Your task to perform on an android device: Open Google Chrome and open the bookmarks view Image 0: 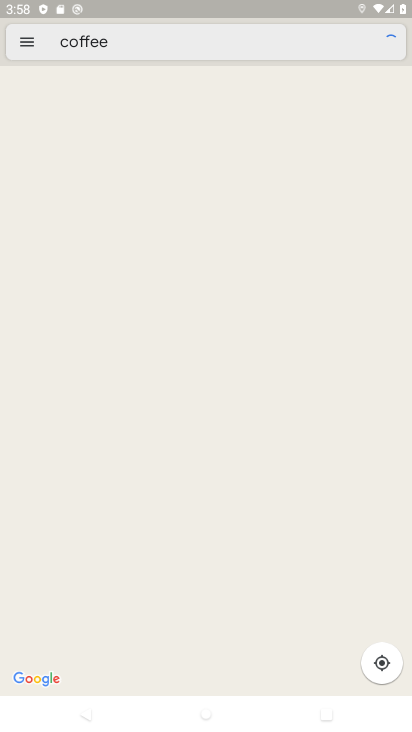
Step 0: press home button
Your task to perform on an android device: Open Google Chrome and open the bookmarks view Image 1: 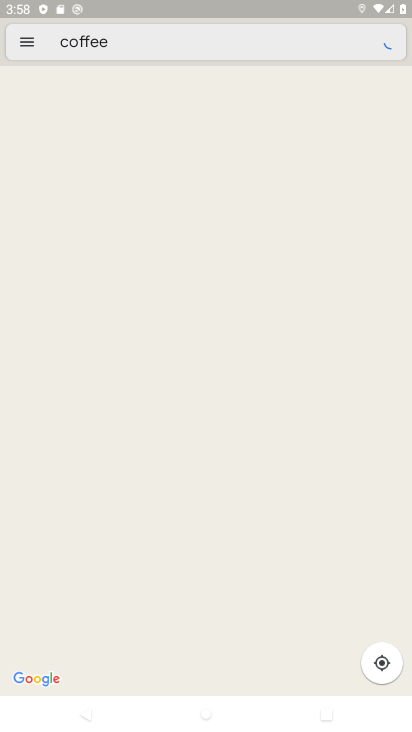
Step 1: press home button
Your task to perform on an android device: Open Google Chrome and open the bookmarks view Image 2: 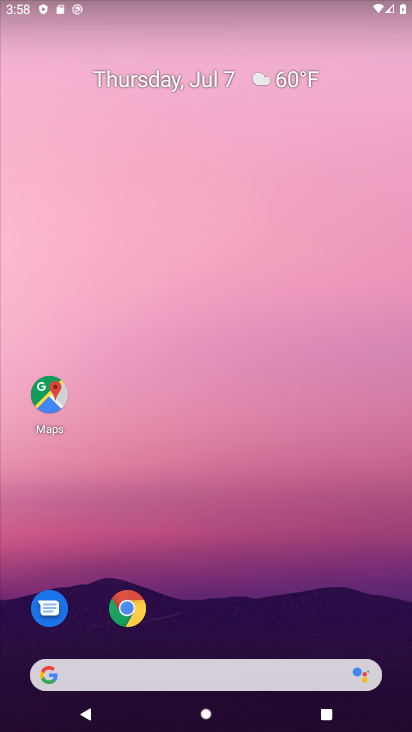
Step 2: click (123, 613)
Your task to perform on an android device: Open Google Chrome and open the bookmarks view Image 3: 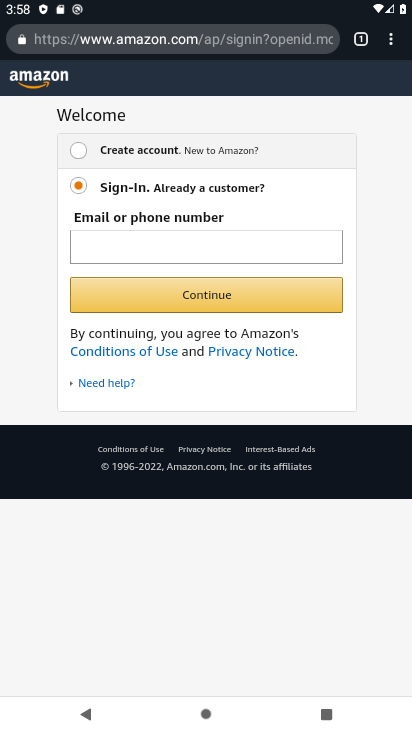
Step 3: click (366, 44)
Your task to perform on an android device: Open Google Chrome and open the bookmarks view Image 4: 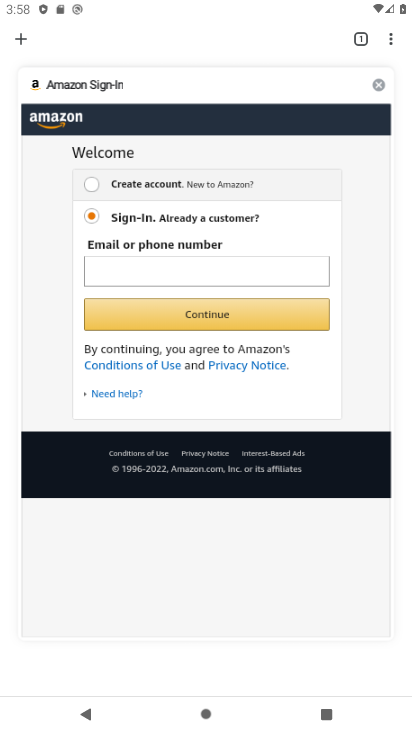
Step 4: click (380, 90)
Your task to perform on an android device: Open Google Chrome and open the bookmarks view Image 5: 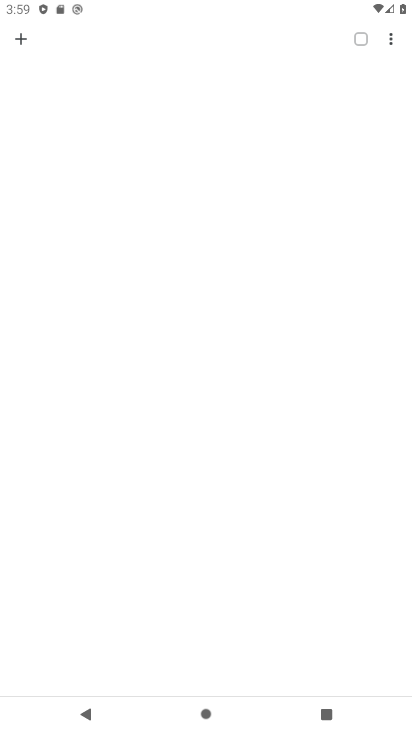
Step 5: click (9, 35)
Your task to perform on an android device: Open Google Chrome and open the bookmarks view Image 6: 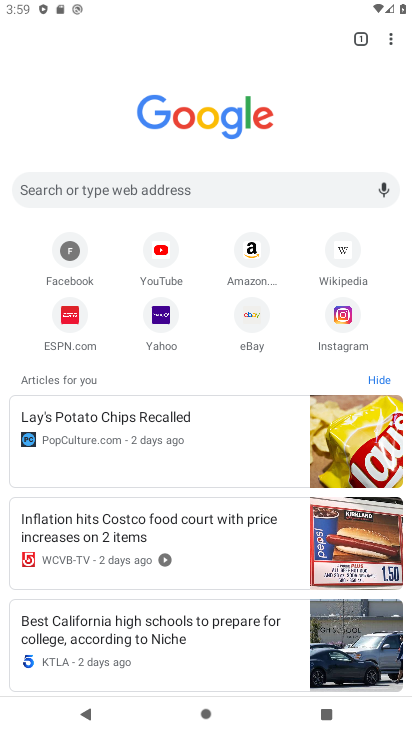
Step 6: click (391, 35)
Your task to perform on an android device: Open Google Chrome and open the bookmarks view Image 7: 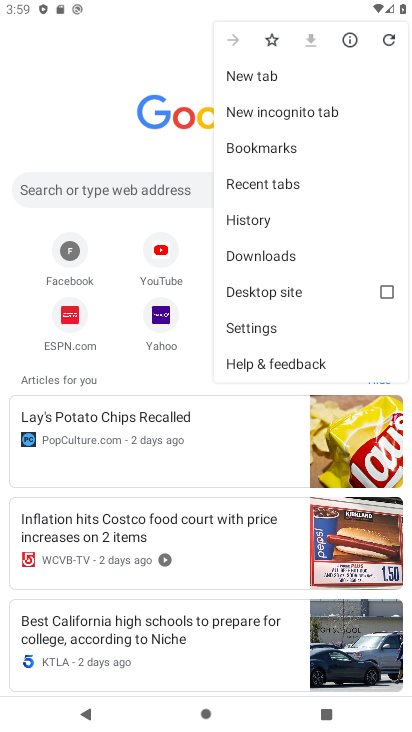
Step 7: click (289, 144)
Your task to perform on an android device: Open Google Chrome and open the bookmarks view Image 8: 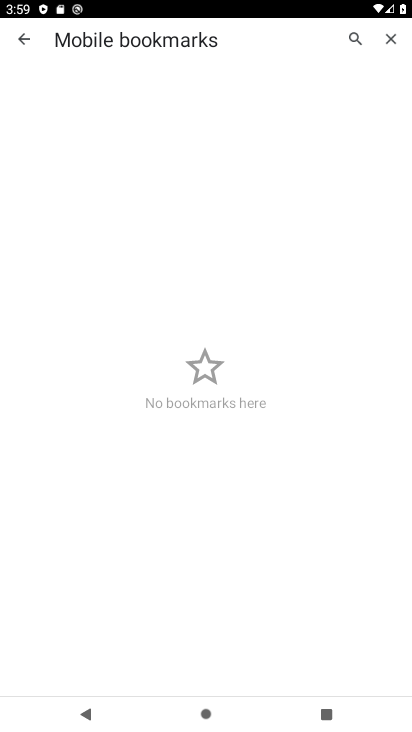
Step 8: task complete